Your task to perform on an android device: check storage Image 0: 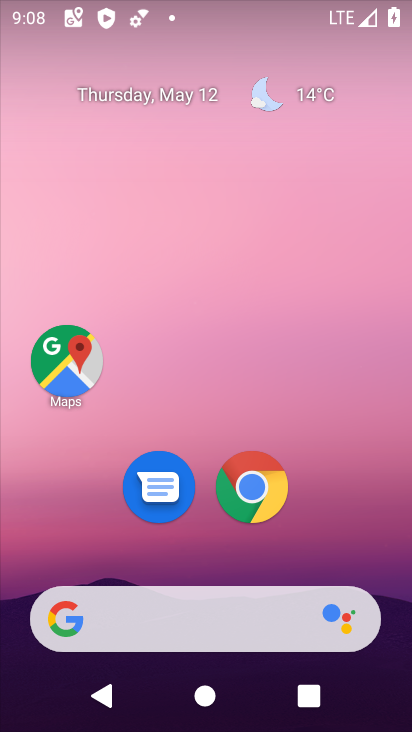
Step 0: press home button
Your task to perform on an android device: check storage Image 1: 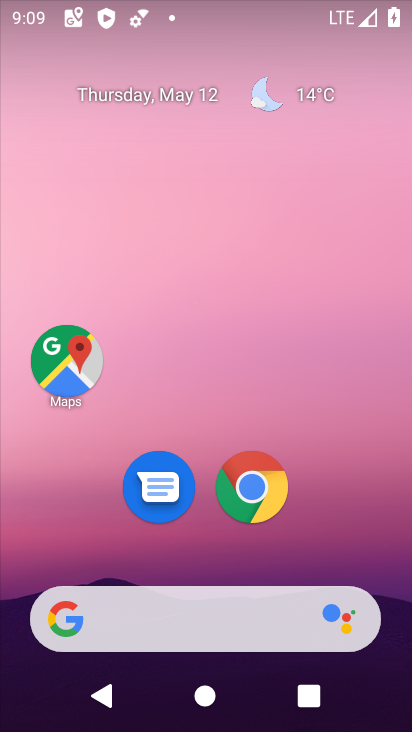
Step 1: drag from (9, 597) to (203, 128)
Your task to perform on an android device: check storage Image 2: 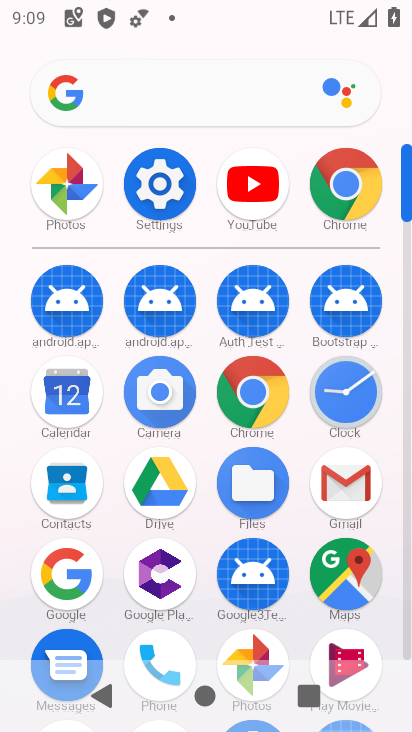
Step 2: click (163, 197)
Your task to perform on an android device: check storage Image 3: 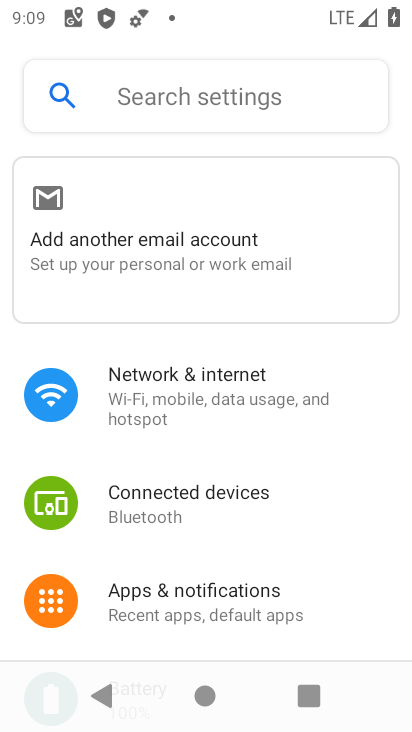
Step 3: drag from (25, 616) to (246, 146)
Your task to perform on an android device: check storage Image 4: 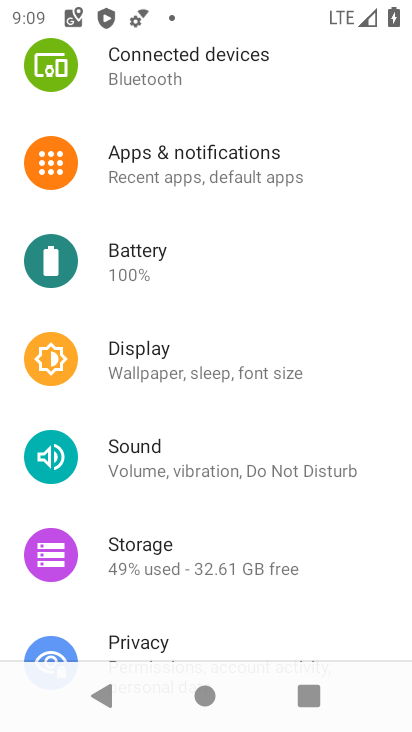
Step 4: click (151, 566)
Your task to perform on an android device: check storage Image 5: 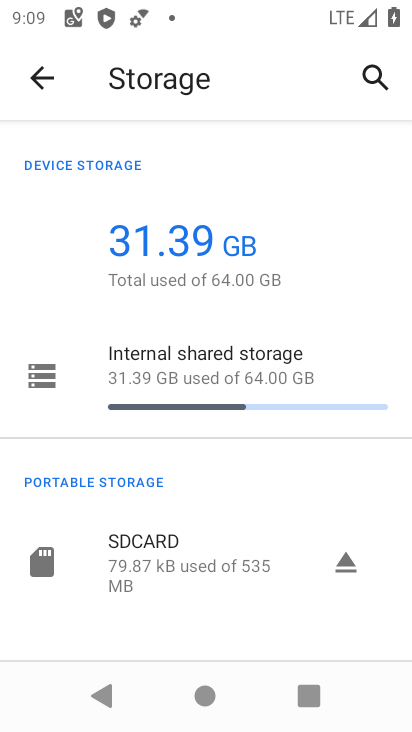
Step 5: task complete